Your task to perform on an android device: Open the calendar app, open the side menu, and click the "Day" option Image 0: 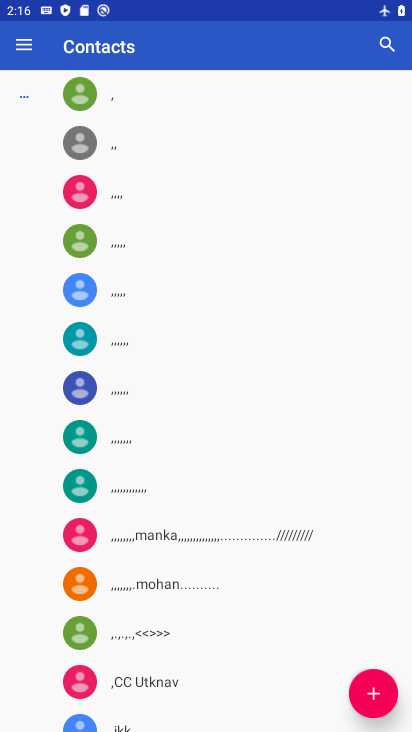
Step 0: press home button
Your task to perform on an android device: Open the calendar app, open the side menu, and click the "Day" option Image 1: 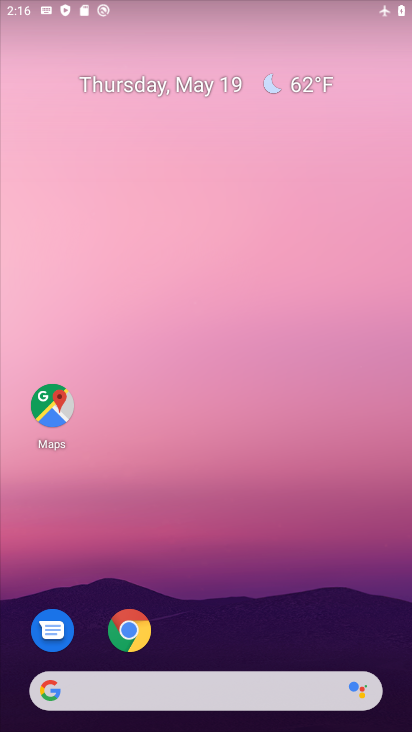
Step 1: drag from (310, 596) to (304, 285)
Your task to perform on an android device: Open the calendar app, open the side menu, and click the "Day" option Image 2: 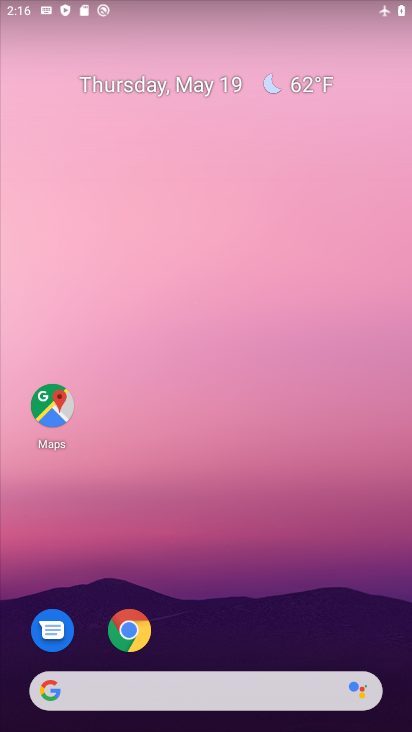
Step 2: drag from (242, 607) to (242, 239)
Your task to perform on an android device: Open the calendar app, open the side menu, and click the "Day" option Image 3: 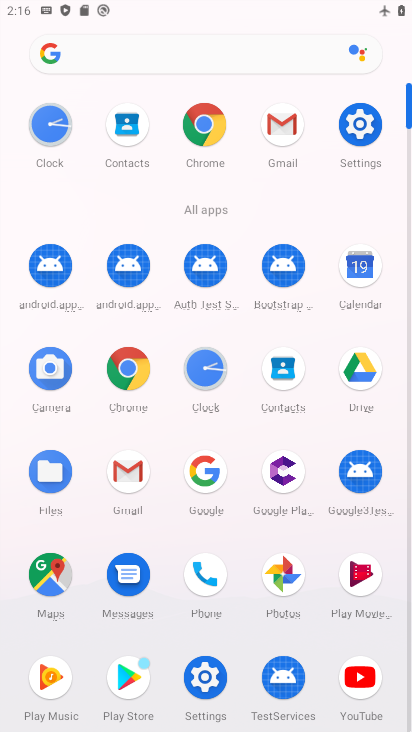
Step 3: click (351, 267)
Your task to perform on an android device: Open the calendar app, open the side menu, and click the "Day" option Image 4: 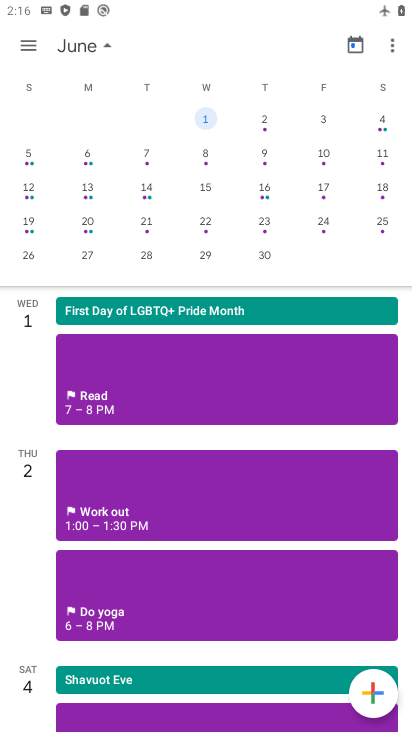
Step 4: click (16, 48)
Your task to perform on an android device: Open the calendar app, open the side menu, and click the "Day" option Image 5: 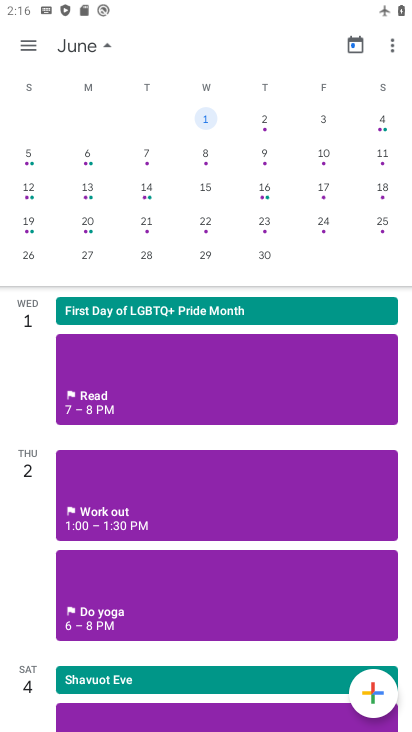
Step 5: click (34, 50)
Your task to perform on an android device: Open the calendar app, open the side menu, and click the "Day" option Image 6: 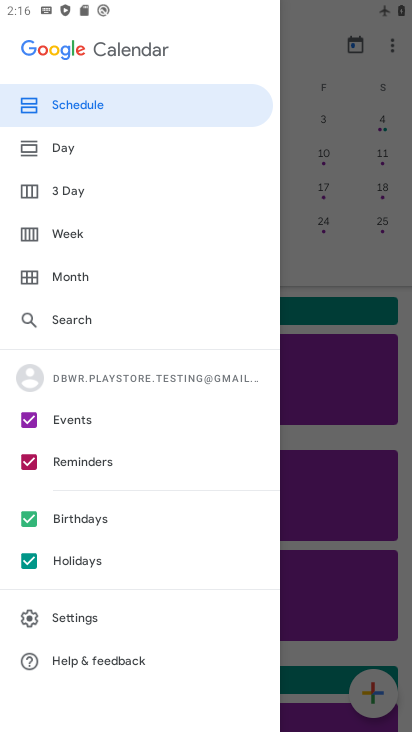
Step 6: click (67, 148)
Your task to perform on an android device: Open the calendar app, open the side menu, and click the "Day" option Image 7: 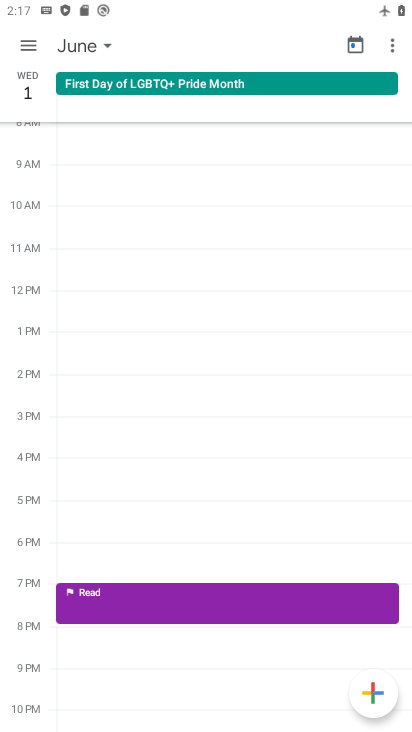
Step 7: task complete